Your task to perform on an android device: Open the web browser Image 0: 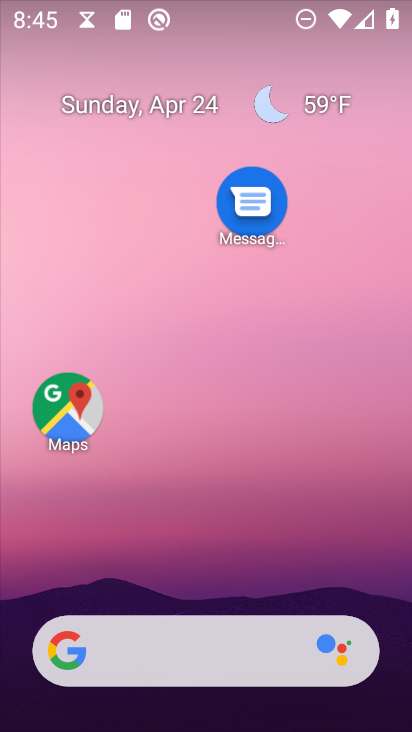
Step 0: drag from (164, 658) to (305, 135)
Your task to perform on an android device: Open the web browser Image 1: 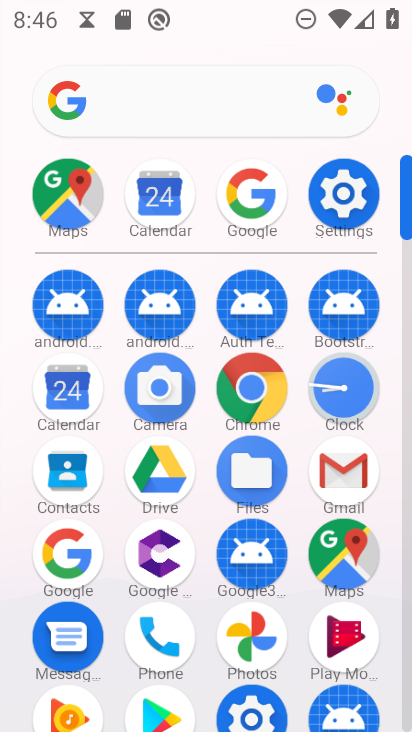
Step 1: click (257, 393)
Your task to perform on an android device: Open the web browser Image 2: 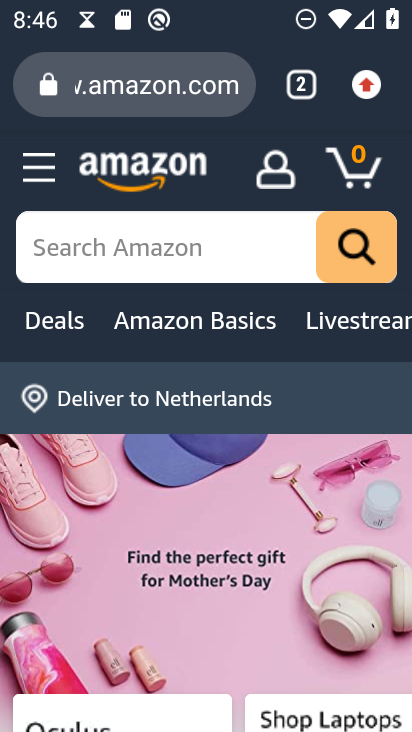
Step 2: click (362, 111)
Your task to perform on an android device: Open the web browser Image 3: 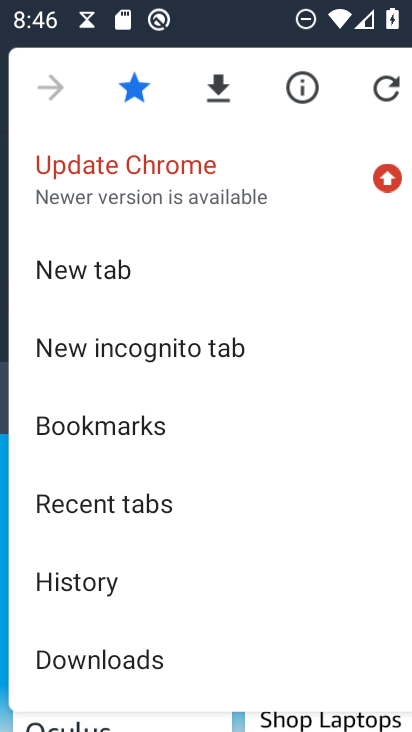
Step 3: click (97, 284)
Your task to perform on an android device: Open the web browser Image 4: 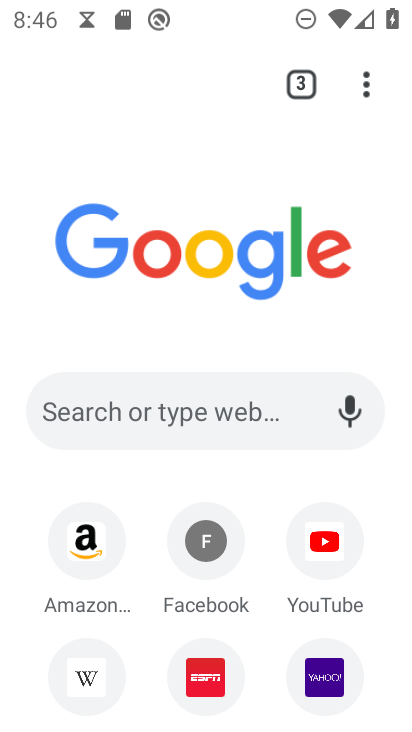
Step 4: task complete